Your task to perform on an android device: Search for the best gaming mouse on Best Buy. Image 0: 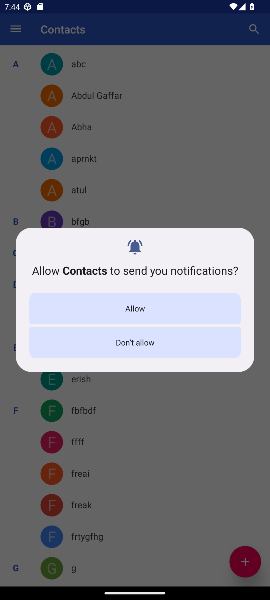
Step 0: press home button
Your task to perform on an android device: Search for the best gaming mouse on Best Buy. Image 1: 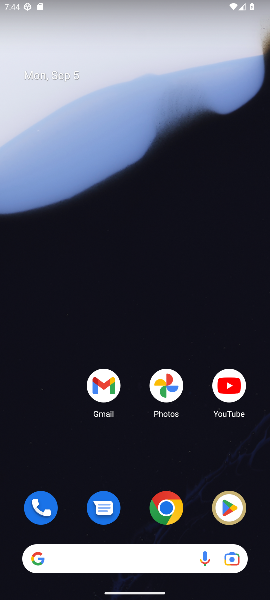
Step 1: click (164, 516)
Your task to perform on an android device: Search for the best gaming mouse on Best Buy. Image 2: 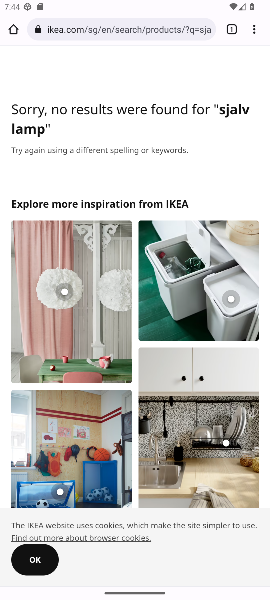
Step 2: click (96, 34)
Your task to perform on an android device: Search for the best gaming mouse on Best Buy. Image 3: 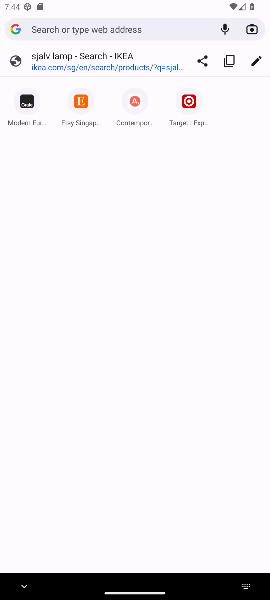
Step 3: type " Best Buy."
Your task to perform on an android device: Search for the best gaming mouse on Best Buy. Image 4: 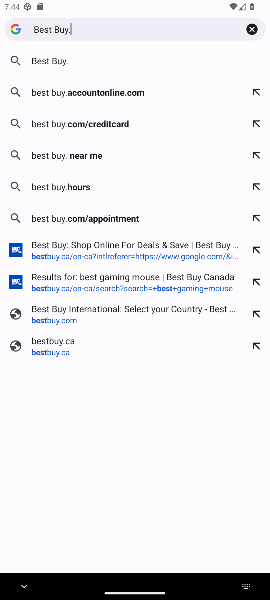
Step 4: click (46, 61)
Your task to perform on an android device: Search for the best gaming mouse on Best Buy. Image 5: 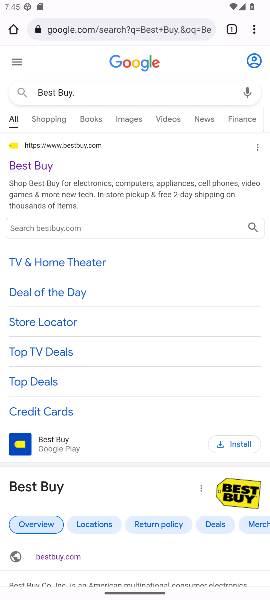
Step 5: click (25, 165)
Your task to perform on an android device: Search for the best gaming mouse on Best Buy. Image 6: 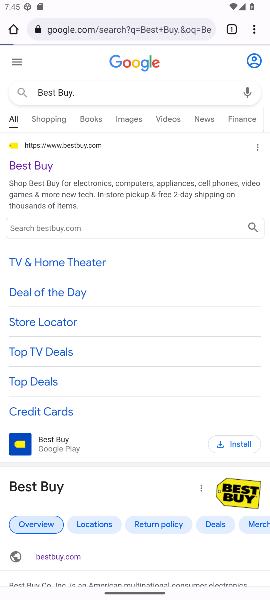
Step 6: click (17, 171)
Your task to perform on an android device: Search for the best gaming mouse on Best Buy. Image 7: 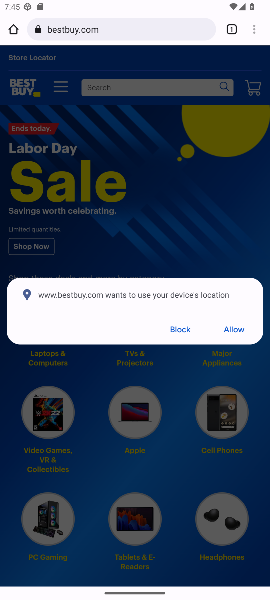
Step 7: click (185, 333)
Your task to perform on an android device: Search for the best gaming mouse on Best Buy. Image 8: 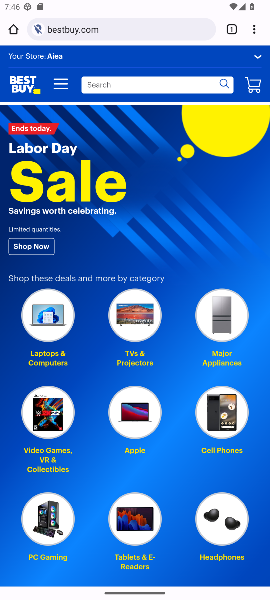
Step 8: click (188, 87)
Your task to perform on an android device: Search for the best gaming mouse on Best Buy. Image 9: 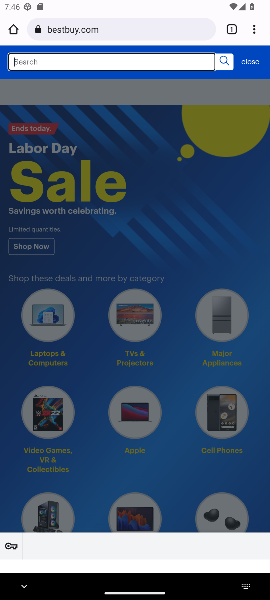
Step 9: type "best gaming mouse"
Your task to perform on an android device: Search for the best gaming mouse on Best Buy. Image 10: 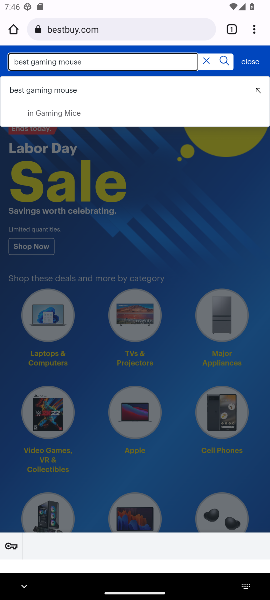
Step 10: click (224, 61)
Your task to perform on an android device: Search for the best gaming mouse on Best Buy. Image 11: 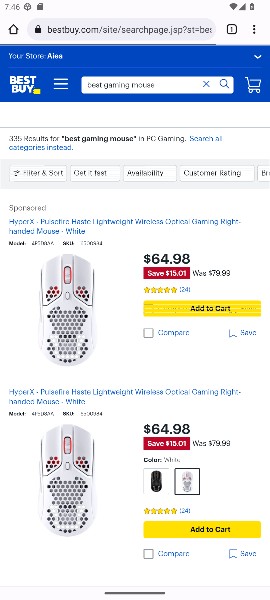
Step 11: task complete